Your task to perform on an android device: Go to eBay Image 0: 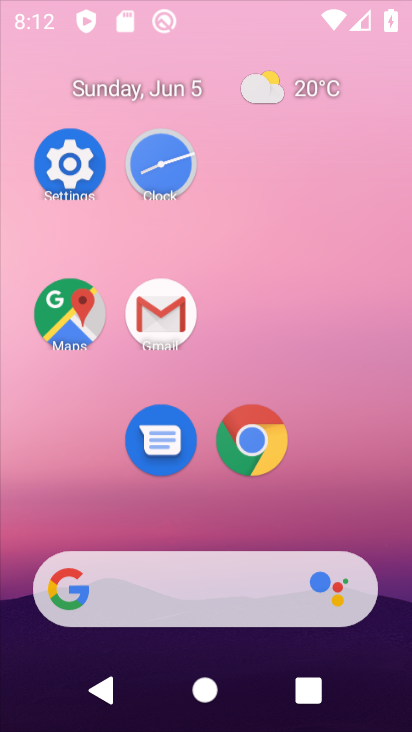
Step 0: drag from (305, 468) to (237, 157)
Your task to perform on an android device: Go to eBay Image 1: 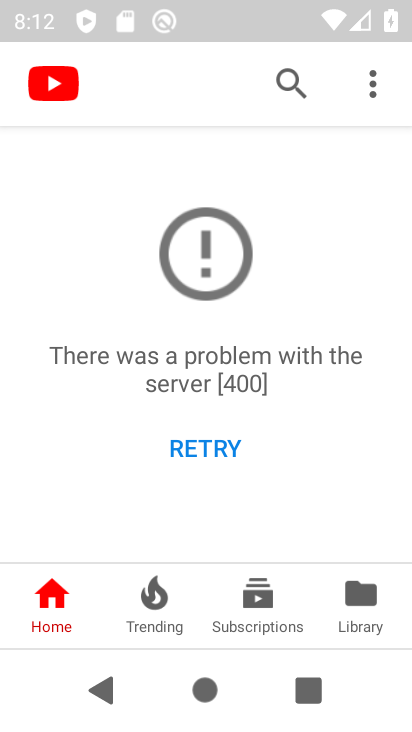
Step 1: press home button
Your task to perform on an android device: Go to eBay Image 2: 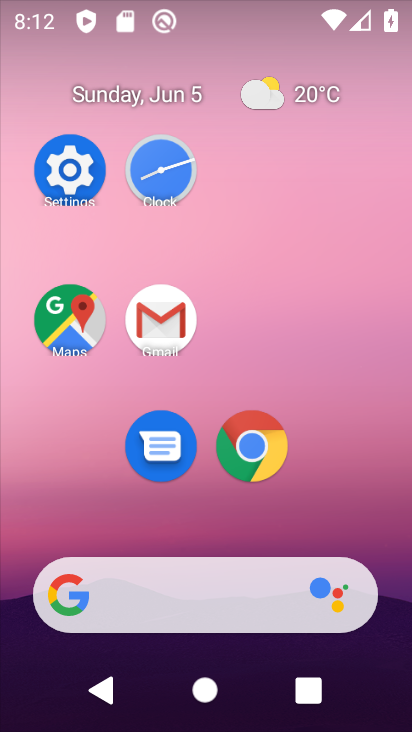
Step 2: drag from (350, 516) to (346, 168)
Your task to perform on an android device: Go to eBay Image 3: 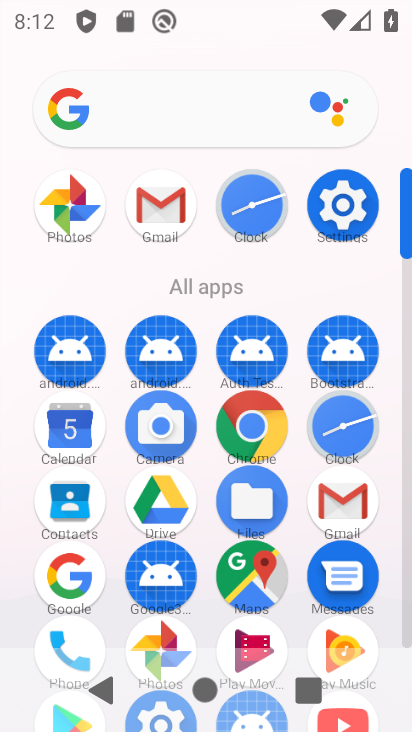
Step 3: drag from (76, 576) to (243, 267)
Your task to perform on an android device: Go to eBay Image 4: 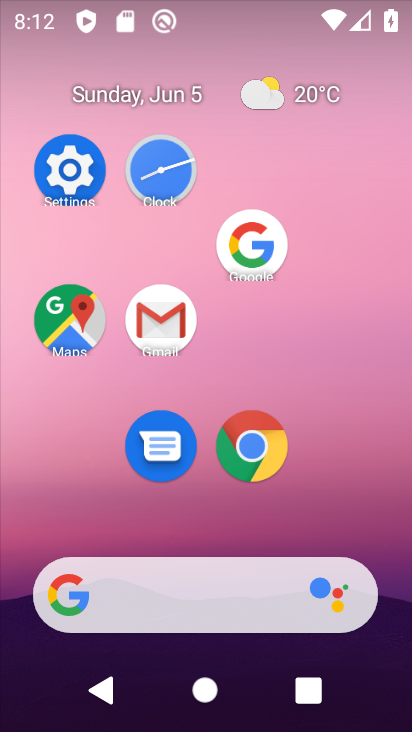
Step 4: drag from (242, 244) to (217, 302)
Your task to perform on an android device: Go to eBay Image 5: 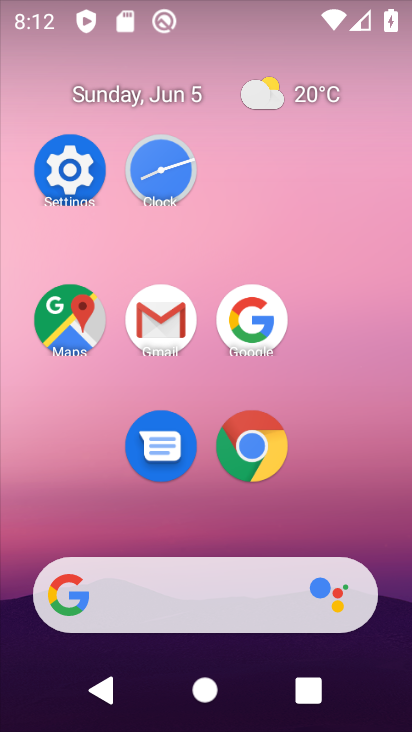
Step 5: click (232, 290)
Your task to perform on an android device: Go to eBay Image 6: 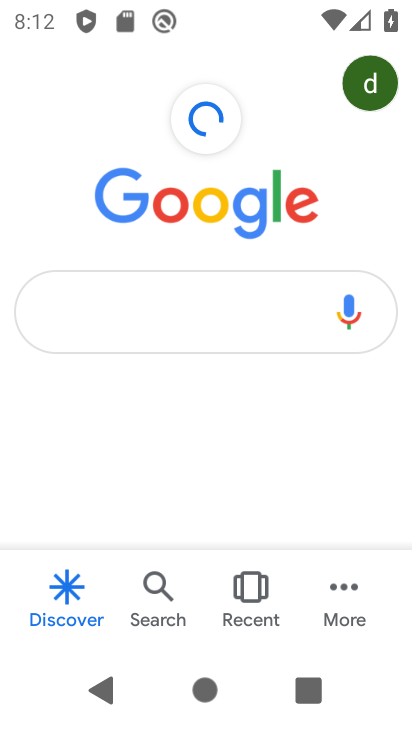
Step 6: drag from (232, 290) to (169, 290)
Your task to perform on an android device: Go to eBay Image 7: 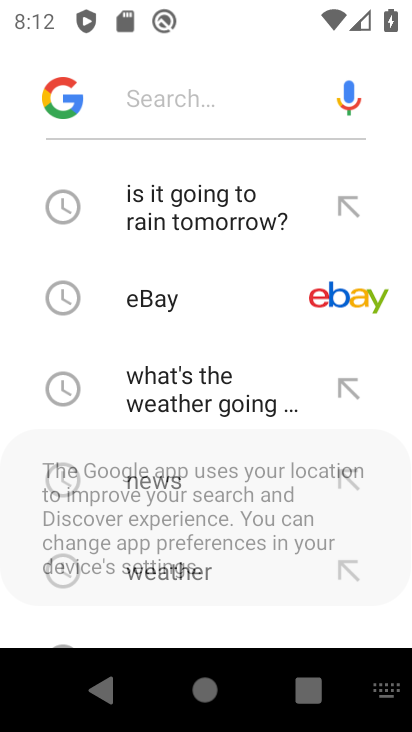
Step 7: click (187, 276)
Your task to perform on an android device: Go to eBay Image 8: 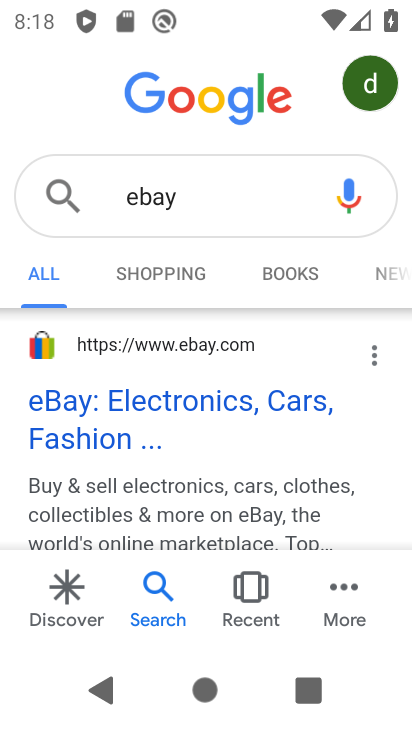
Step 8: task complete